Your task to perform on an android device: Go to CNN.com Image 0: 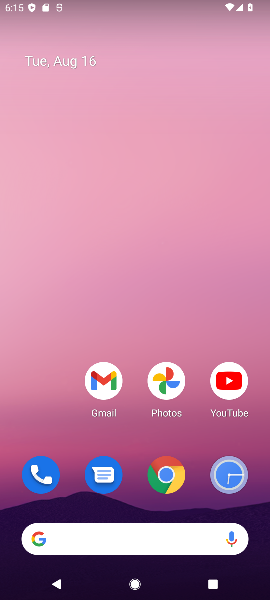
Step 0: drag from (204, 498) to (69, 56)
Your task to perform on an android device: Go to CNN.com Image 1: 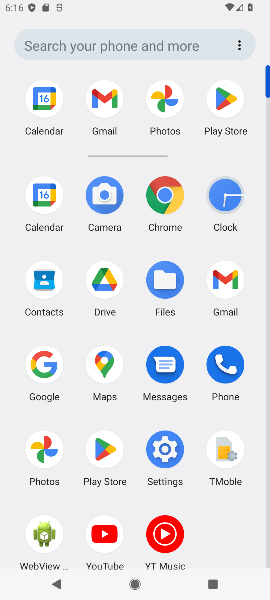
Step 1: click (50, 362)
Your task to perform on an android device: Go to CNN.com Image 2: 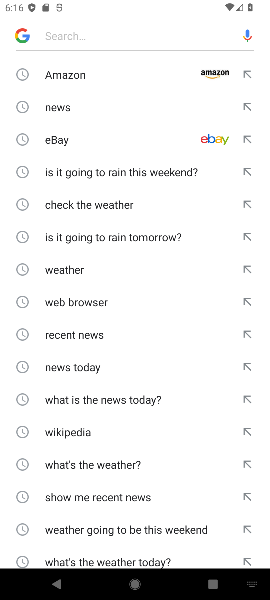
Step 2: type "CNN.com"
Your task to perform on an android device: Go to CNN.com Image 3: 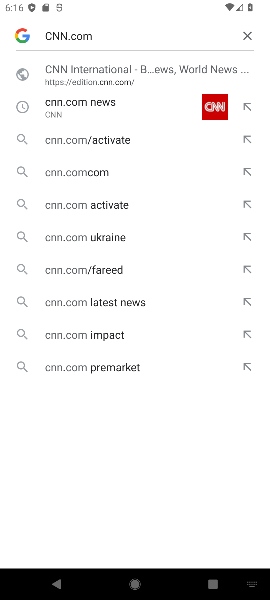
Step 3: click (67, 64)
Your task to perform on an android device: Go to CNN.com Image 4: 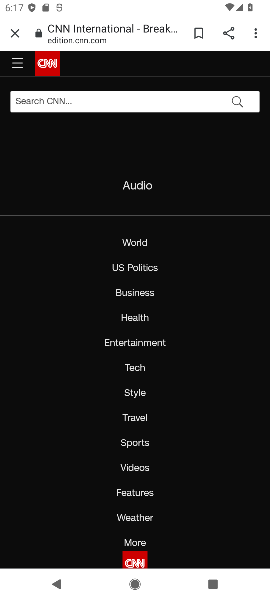
Step 4: task complete